Your task to perform on an android device: Go to Google Image 0: 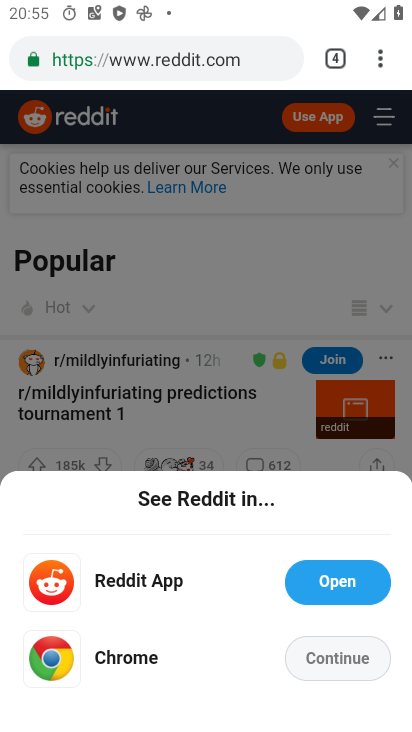
Step 0: press home button
Your task to perform on an android device: Go to Google Image 1: 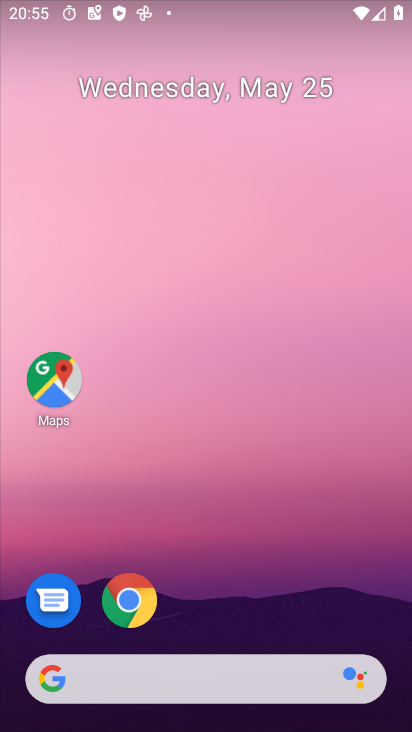
Step 1: drag from (344, 582) to (308, 105)
Your task to perform on an android device: Go to Google Image 2: 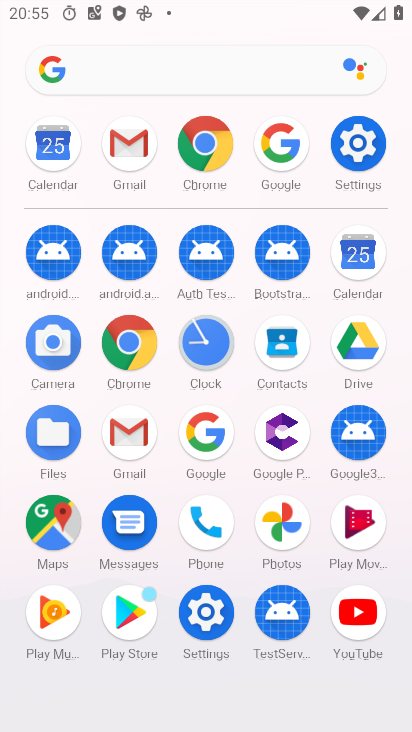
Step 2: click (199, 436)
Your task to perform on an android device: Go to Google Image 3: 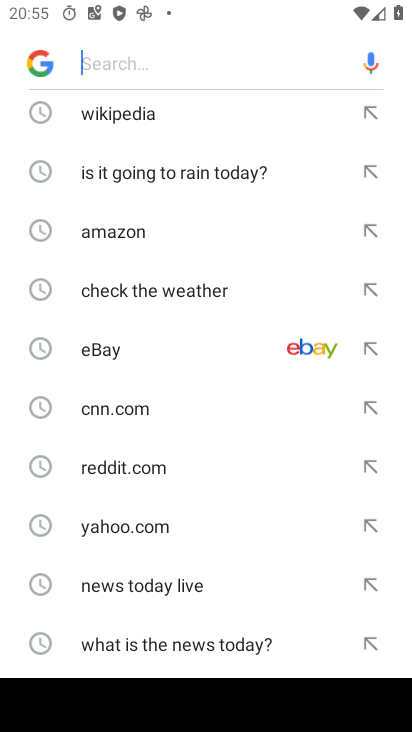
Step 3: task complete